Your task to perform on an android device: turn off improve location accuracy Image 0: 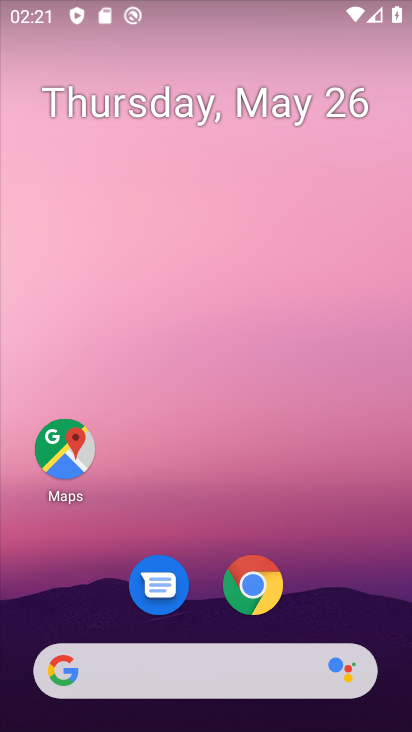
Step 0: drag from (220, 522) to (252, 10)
Your task to perform on an android device: turn off improve location accuracy Image 1: 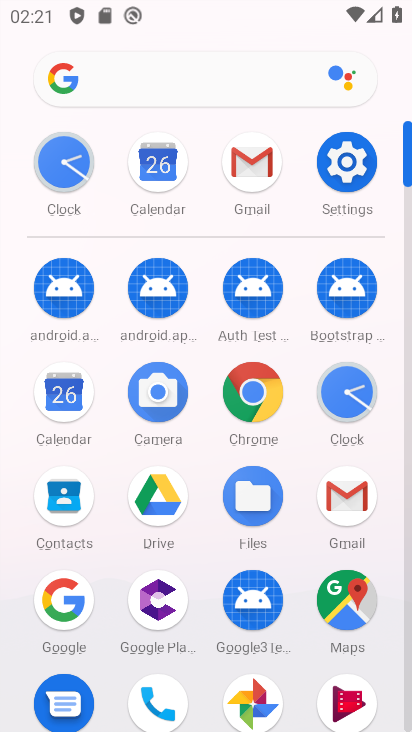
Step 1: click (351, 160)
Your task to perform on an android device: turn off improve location accuracy Image 2: 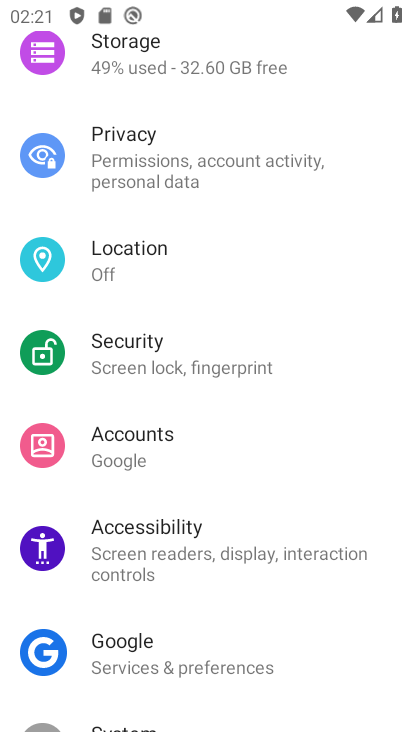
Step 2: click (170, 261)
Your task to perform on an android device: turn off improve location accuracy Image 3: 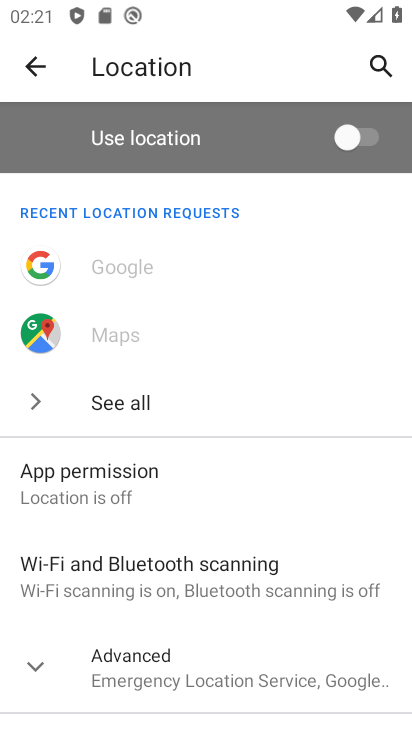
Step 3: click (36, 664)
Your task to perform on an android device: turn off improve location accuracy Image 4: 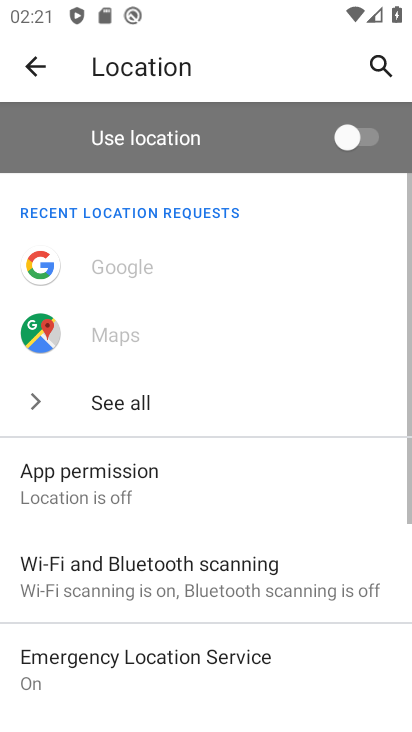
Step 4: drag from (251, 600) to (302, 169)
Your task to perform on an android device: turn off improve location accuracy Image 5: 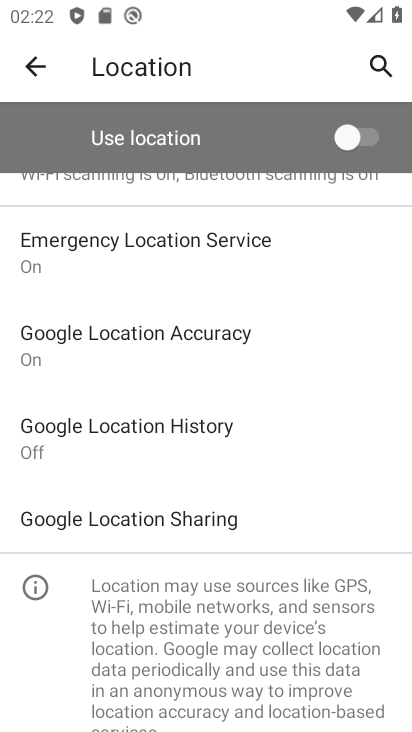
Step 5: click (223, 328)
Your task to perform on an android device: turn off improve location accuracy Image 6: 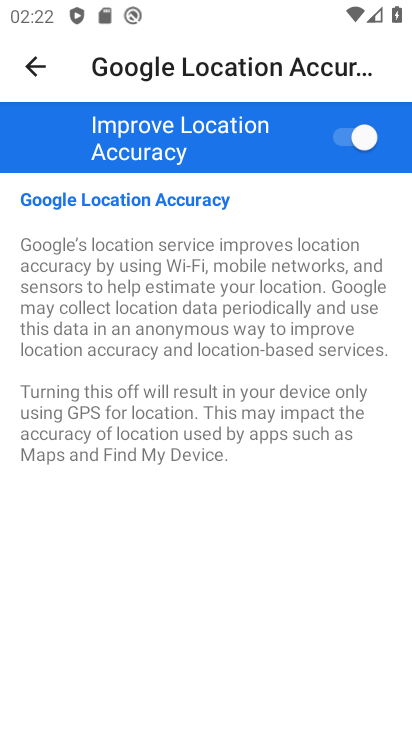
Step 6: click (339, 136)
Your task to perform on an android device: turn off improve location accuracy Image 7: 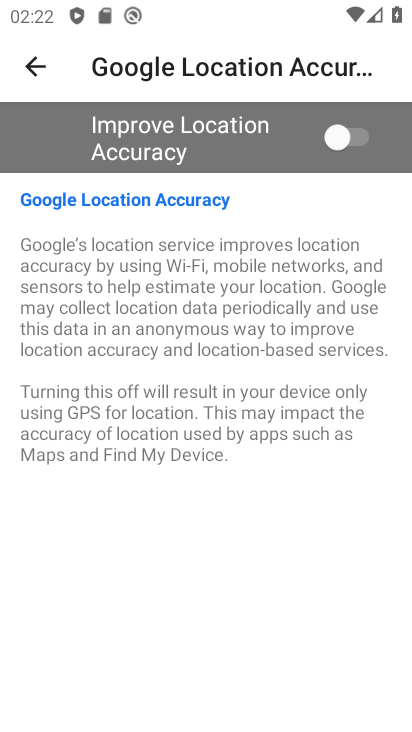
Step 7: task complete